Your task to perform on an android device: delete location history Image 0: 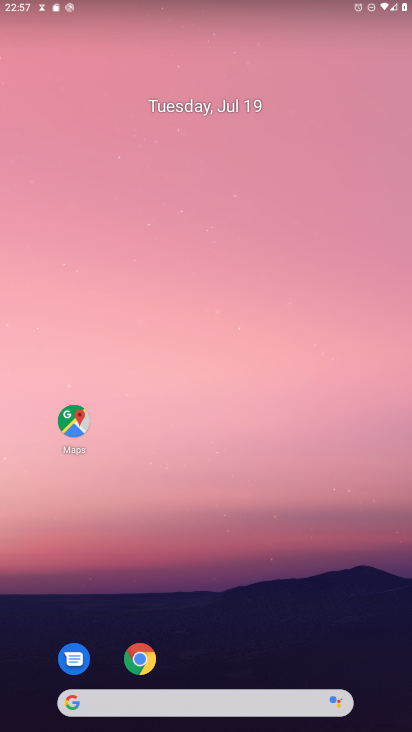
Step 0: drag from (243, 670) to (194, 243)
Your task to perform on an android device: delete location history Image 1: 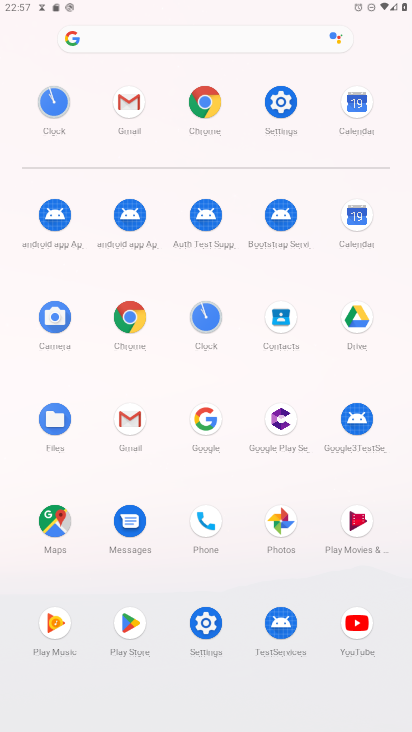
Step 1: click (55, 505)
Your task to perform on an android device: delete location history Image 2: 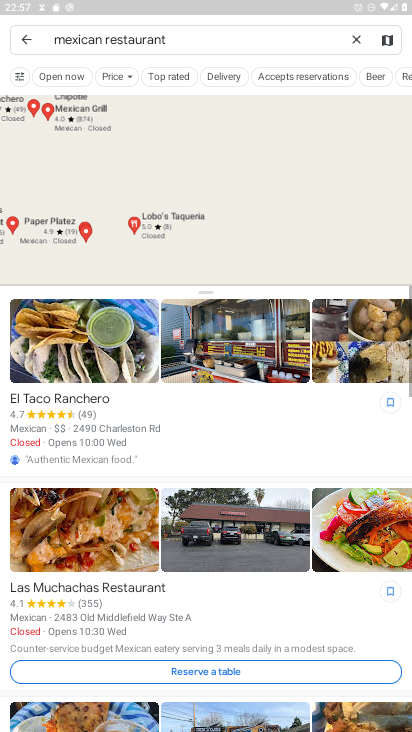
Step 2: click (365, 34)
Your task to perform on an android device: delete location history Image 3: 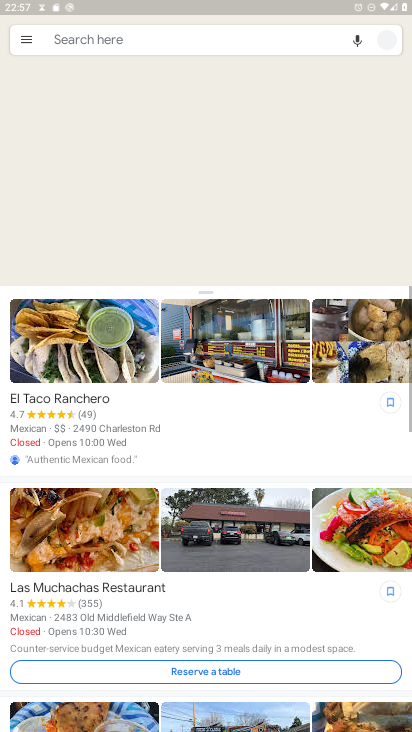
Step 3: click (25, 40)
Your task to perform on an android device: delete location history Image 4: 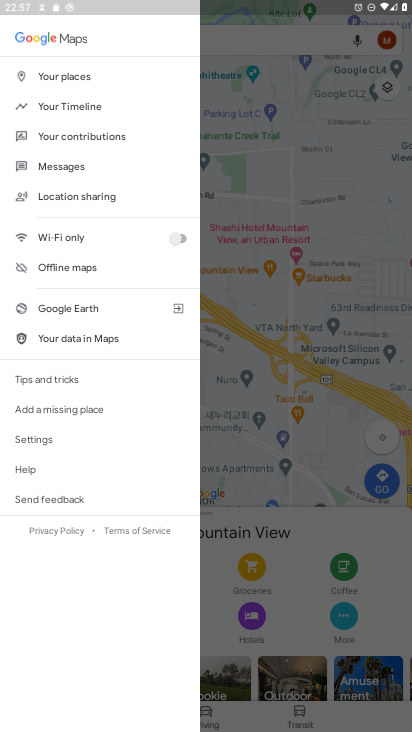
Step 4: click (90, 100)
Your task to perform on an android device: delete location history Image 5: 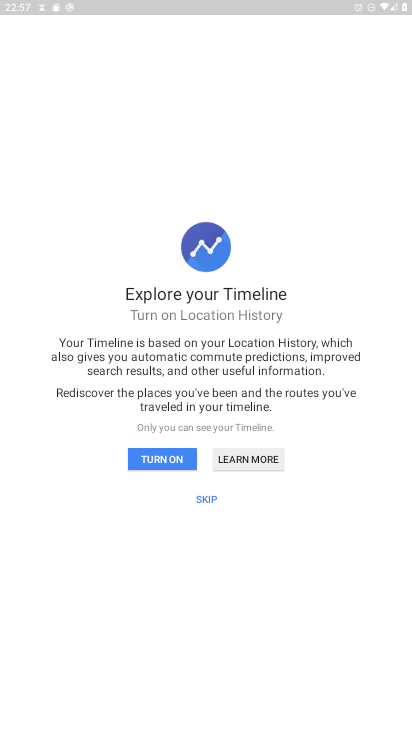
Step 5: click (203, 493)
Your task to perform on an android device: delete location history Image 6: 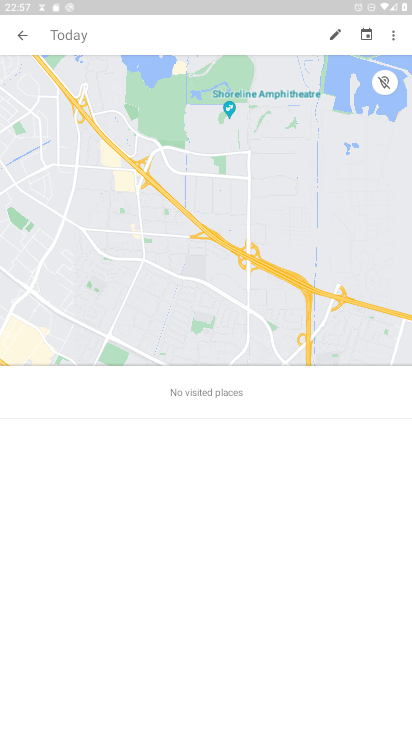
Step 6: click (399, 41)
Your task to perform on an android device: delete location history Image 7: 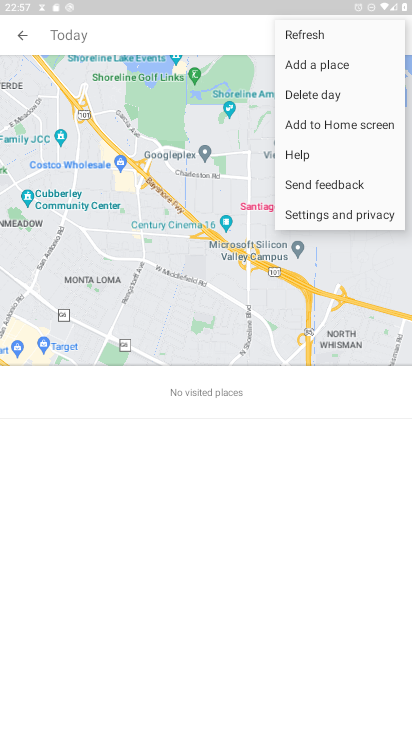
Step 7: click (332, 216)
Your task to perform on an android device: delete location history Image 8: 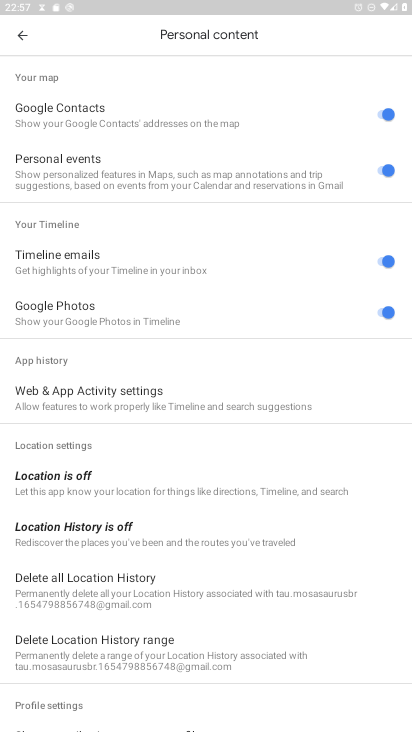
Step 8: click (144, 523)
Your task to perform on an android device: delete location history Image 9: 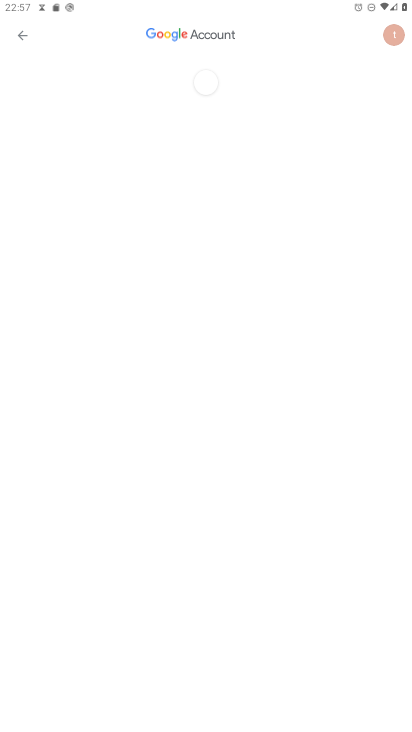
Step 9: click (29, 36)
Your task to perform on an android device: delete location history Image 10: 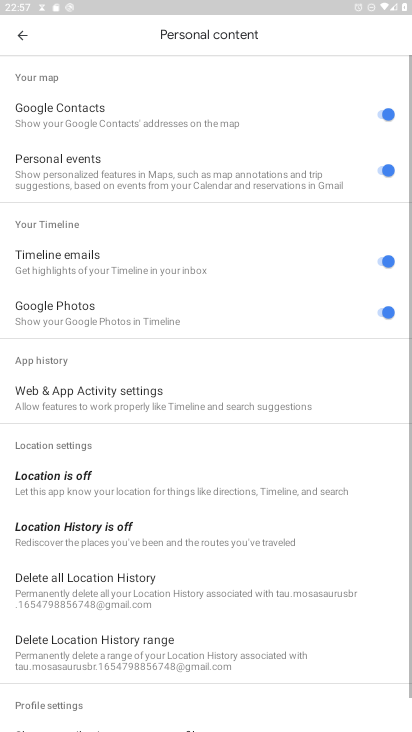
Step 10: click (28, 39)
Your task to perform on an android device: delete location history Image 11: 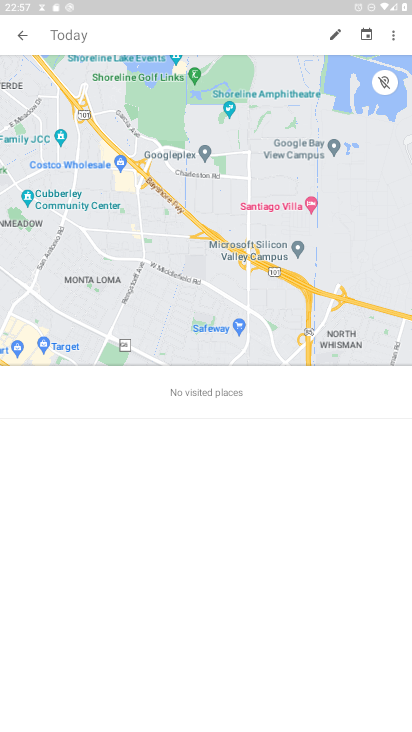
Step 11: click (400, 29)
Your task to perform on an android device: delete location history Image 12: 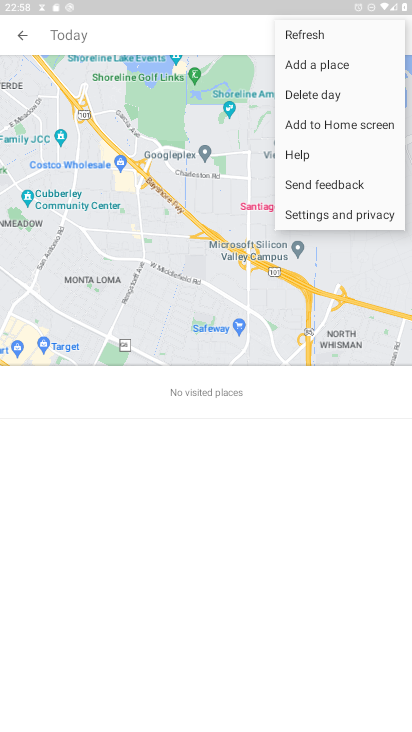
Step 12: click (320, 210)
Your task to perform on an android device: delete location history Image 13: 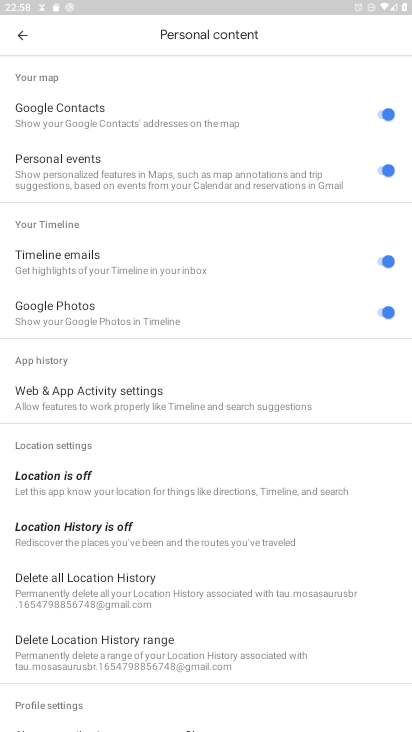
Step 13: click (119, 576)
Your task to perform on an android device: delete location history Image 14: 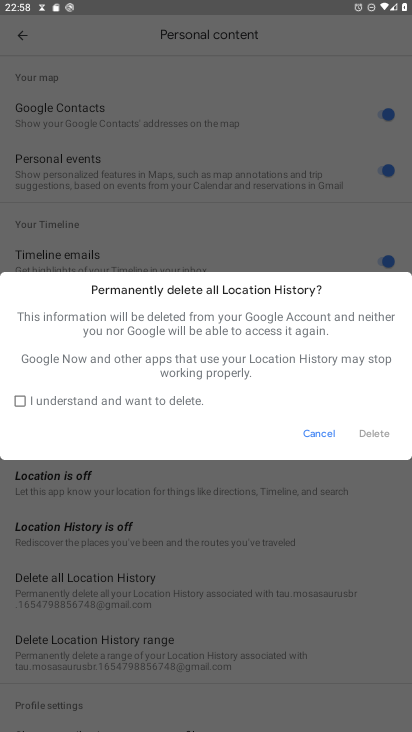
Step 14: click (41, 403)
Your task to perform on an android device: delete location history Image 15: 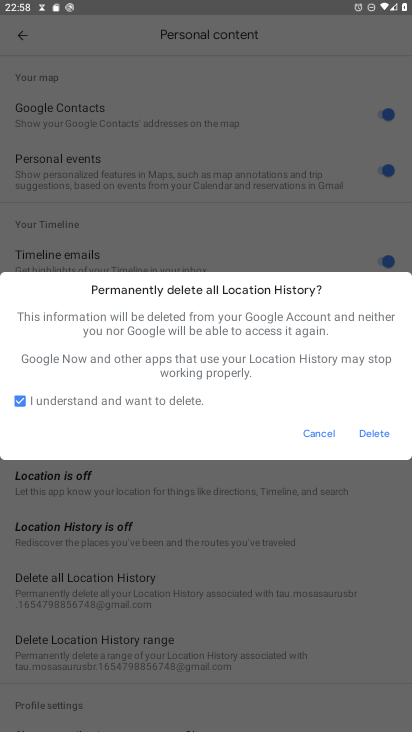
Step 15: click (379, 428)
Your task to perform on an android device: delete location history Image 16: 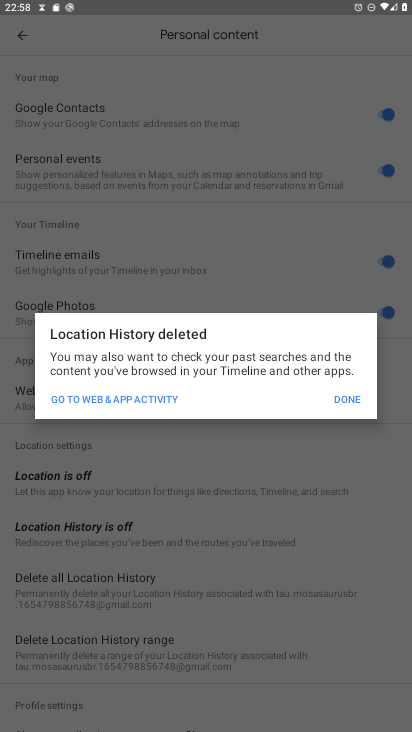
Step 16: click (359, 403)
Your task to perform on an android device: delete location history Image 17: 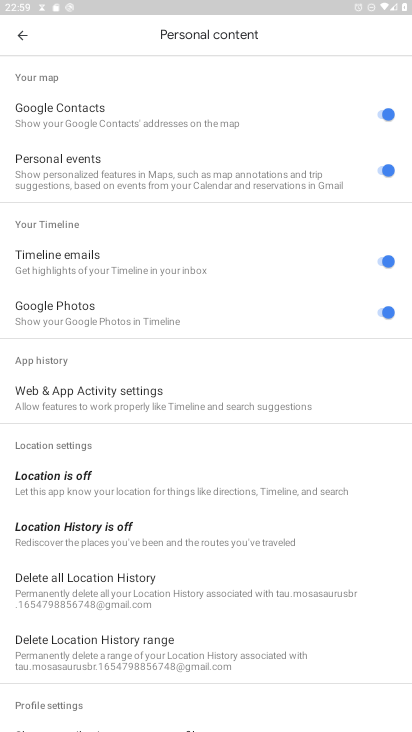
Step 17: task complete